Your task to perform on an android device: change the upload size in google photos Image 0: 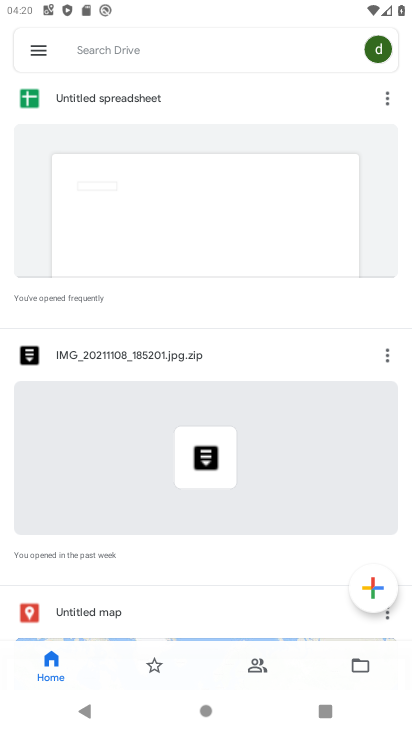
Step 0: press home button
Your task to perform on an android device: change the upload size in google photos Image 1: 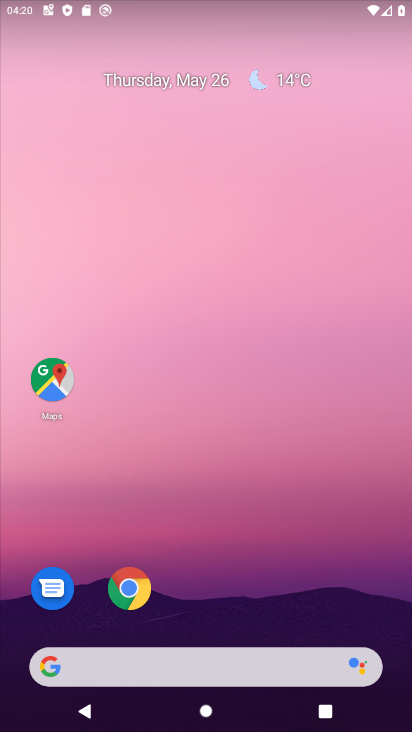
Step 1: drag from (259, 597) to (268, 131)
Your task to perform on an android device: change the upload size in google photos Image 2: 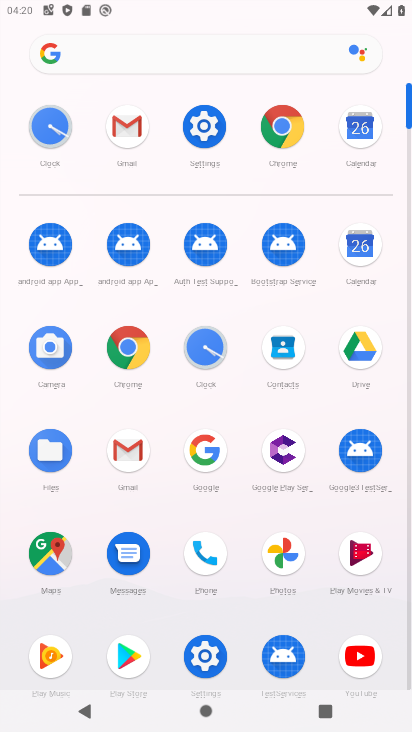
Step 2: click (285, 548)
Your task to perform on an android device: change the upload size in google photos Image 3: 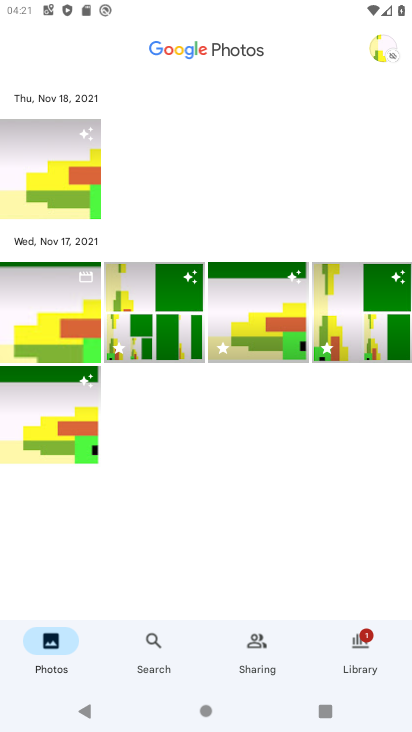
Step 3: click (359, 652)
Your task to perform on an android device: change the upload size in google photos Image 4: 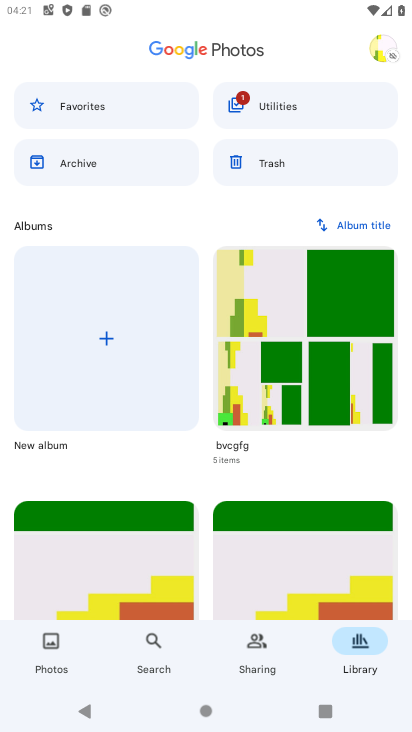
Step 4: click (381, 55)
Your task to perform on an android device: change the upload size in google photos Image 5: 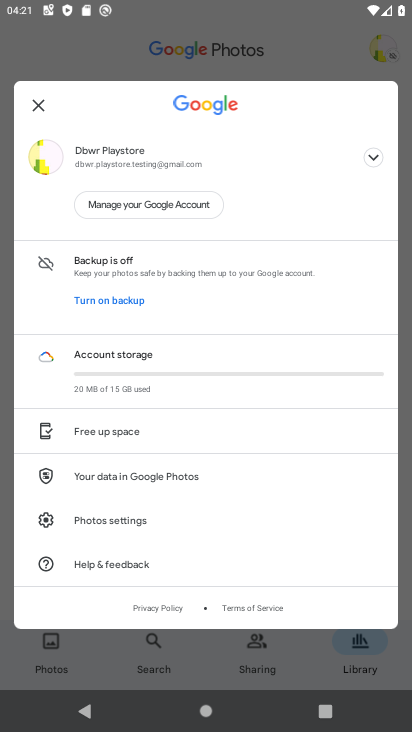
Step 5: click (209, 532)
Your task to perform on an android device: change the upload size in google photos Image 6: 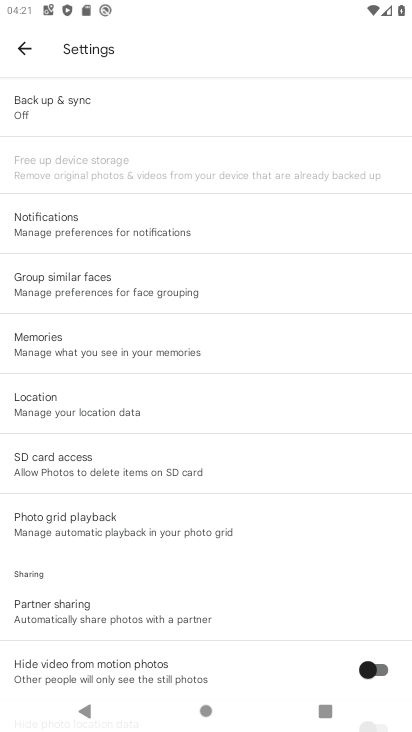
Step 6: task complete